Your task to perform on an android device: Go to settings Image 0: 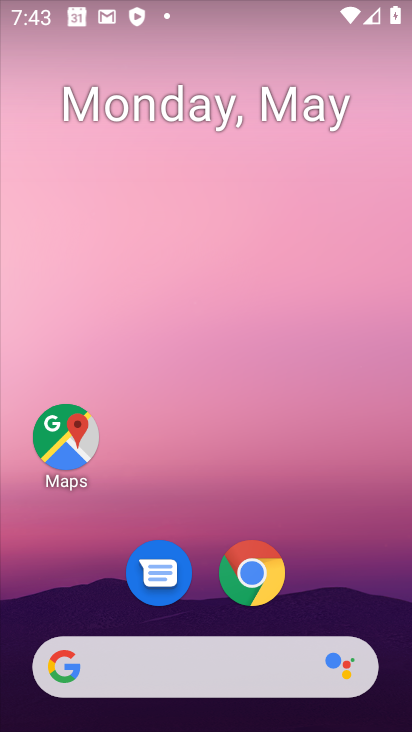
Step 0: drag from (213, 606) to (212, 198)
Your task to perform on an android device: Go to settings Image 1: 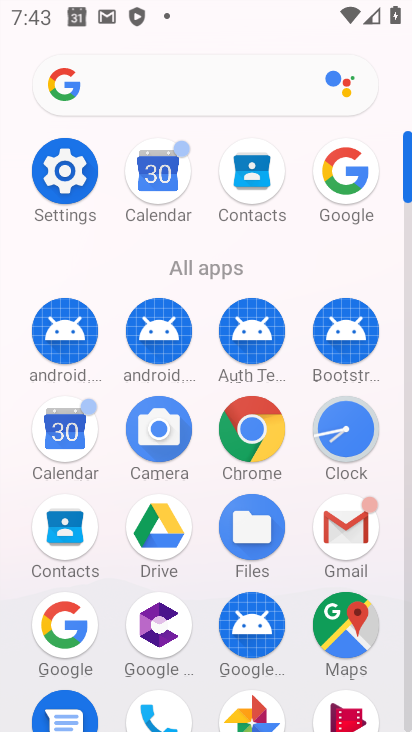
Step 1: click (73, 177)
Your task to perform on an android device: Go to settings Image 2: 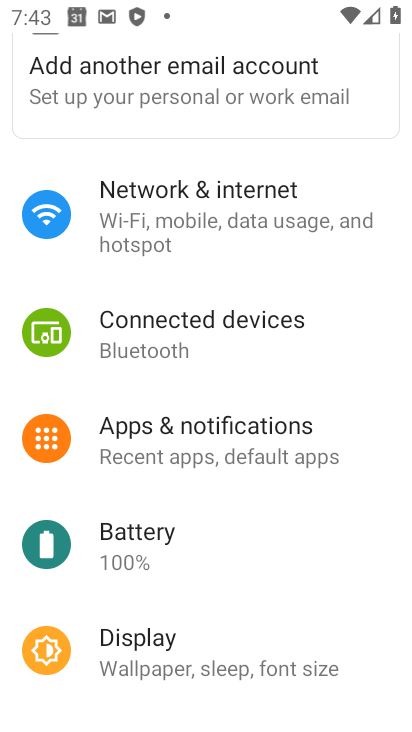
Step 2: task complete